Your task to perform on an android device: uninstall "Messages" Image 0: 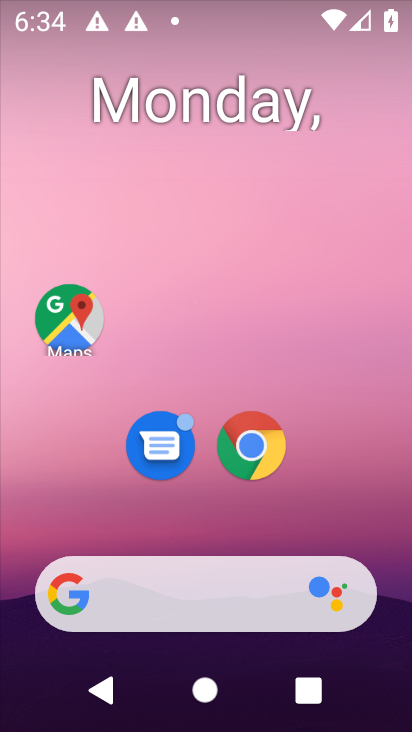
Step 0: drag from (339, 512) to (278, 13)
Your task to perform on an android device: uninstall "Messages" Image 1: 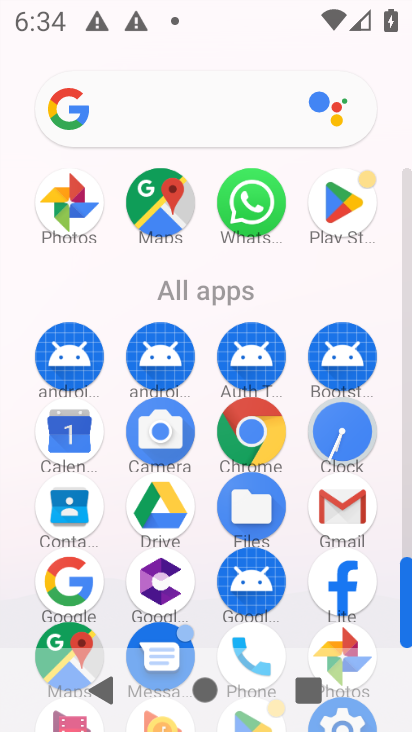
Step 1: click (339, 193)
Your task to perform on an android device: uninstall "Messages" Image 2: 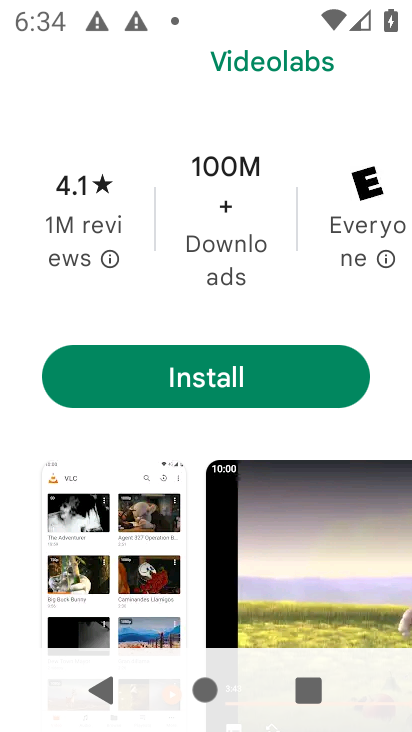
Step 2: press back button
Your task to perform on an android device: uninstall "Messages" Image 3: 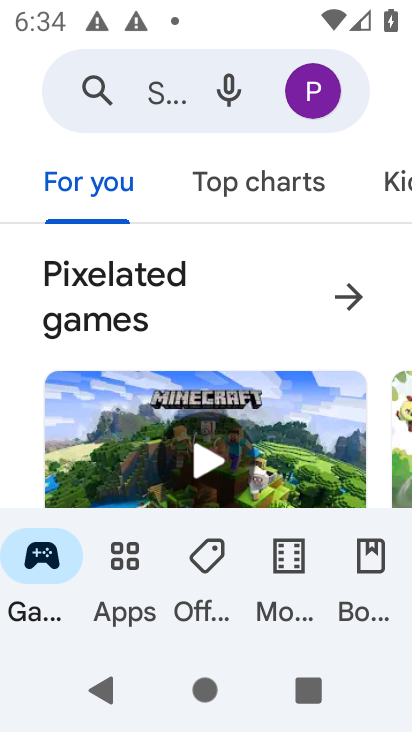
Step 3: click (142, 102)
Your task to perform on an android device: uninstall "Messages" Image 4: 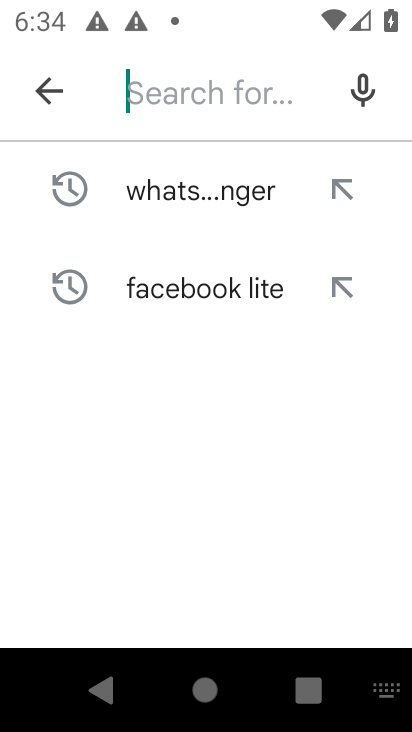
Step 4: type "Messages"
Your task to perform on an android device: uninstall "Messages" Image 5: 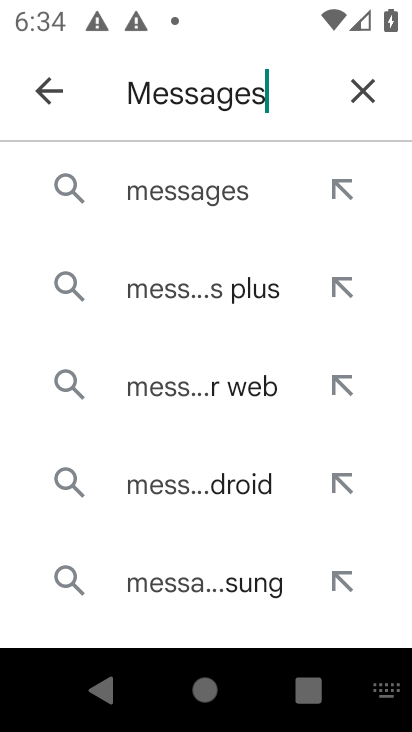
Step 5: click (144, 196)
Your task to perform on an android device: uninstall "Messages" Image 6: 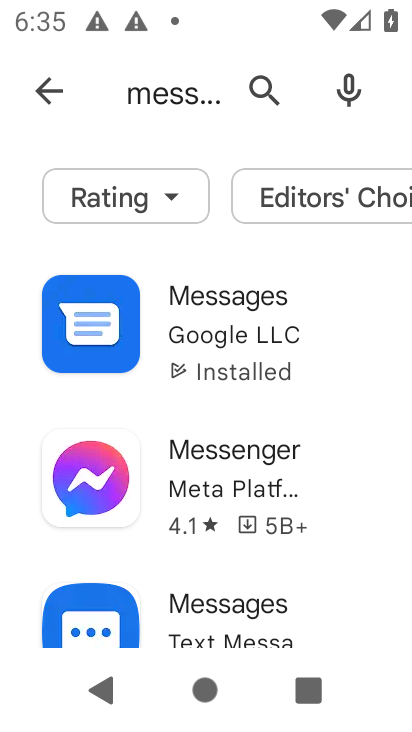
Step 6: click (235, 307)
Your task to perform on an android device: uninstall "Messages" Image 7: 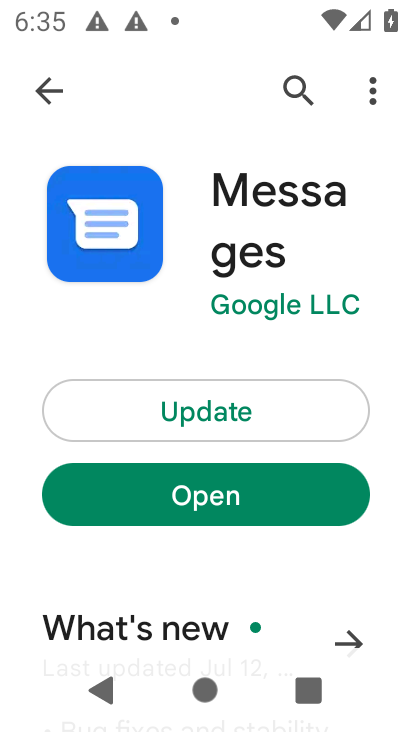
Step 7: task complete